Your task to perform on an android device: Go to network settings Image 0: 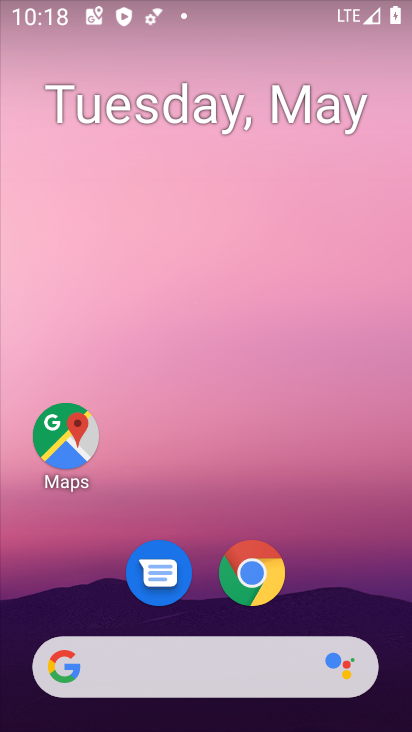
Step 0: drag from (156, 369) to (128, 54)
Your task to perform on an android device: Go to network settings Image 1: 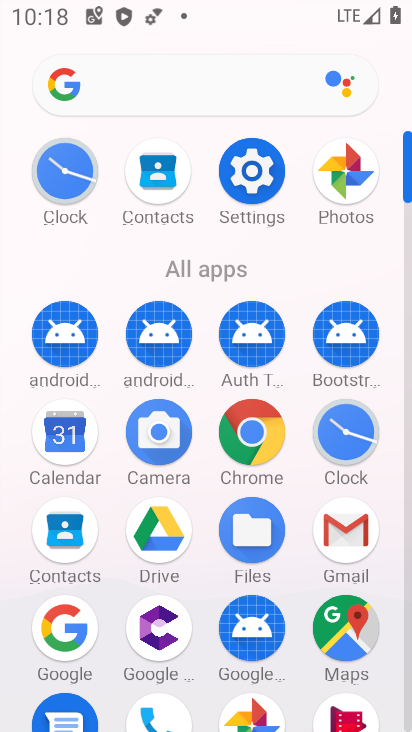
Step 1: click (255, 185)
Your task to perform on an android device: Go to network settings Image 2: 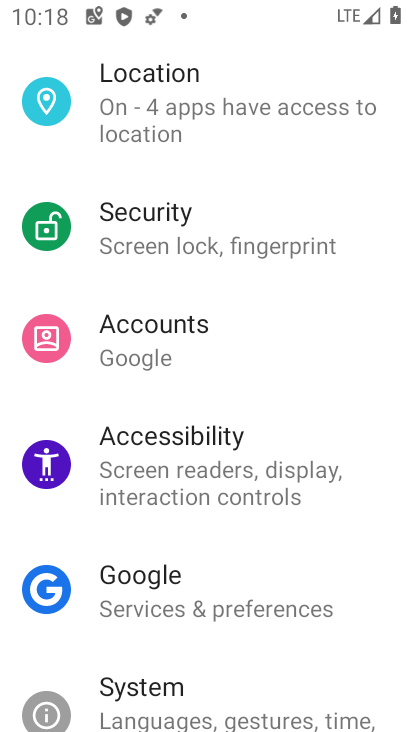
Step 2: drag from (261, 89) to (256, 643)
Your task to perform on an android device: Go to network settings Image 3: 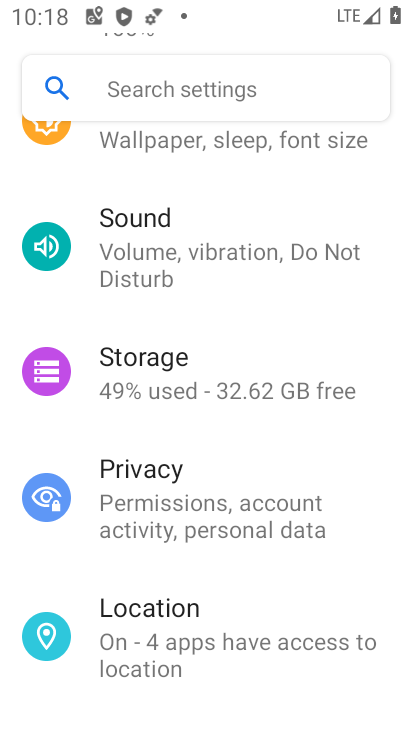
Step 3: drag from (224, 227) to (232, 596)
Your task to perform on an android device: Go to network settings Image 4: 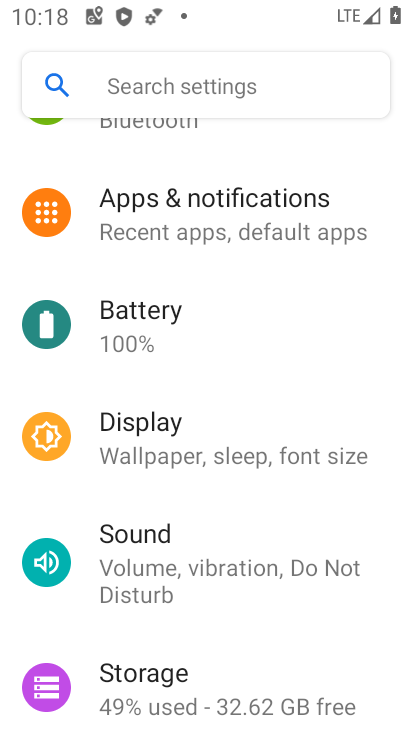
Step 4: drag from (229, 164) to (269, 592)
Your task to perform on an android device: Go to network settings Image 5: 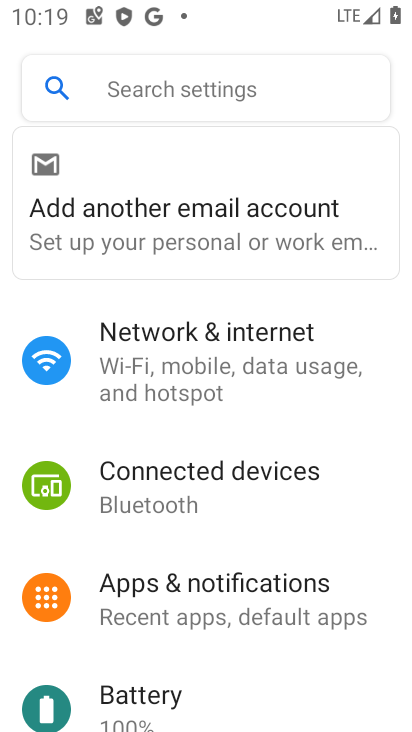
Step 5: click (277, 357)
Your task to perform on an android device: Go to network settings Image 6: 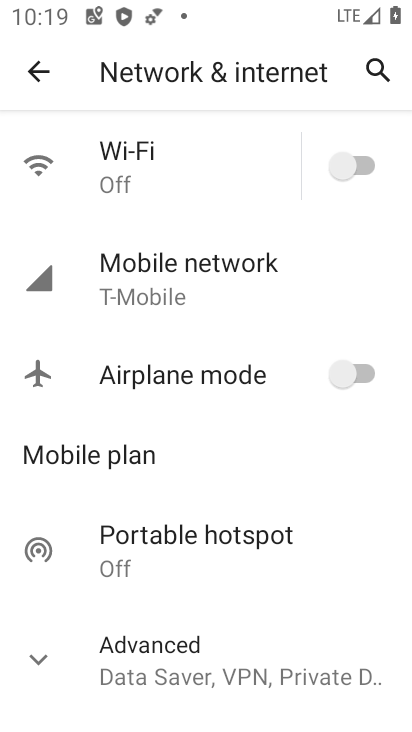
Step 6: click (185, 664)
Your task to perform on an android device: Go to network settings Image 7: 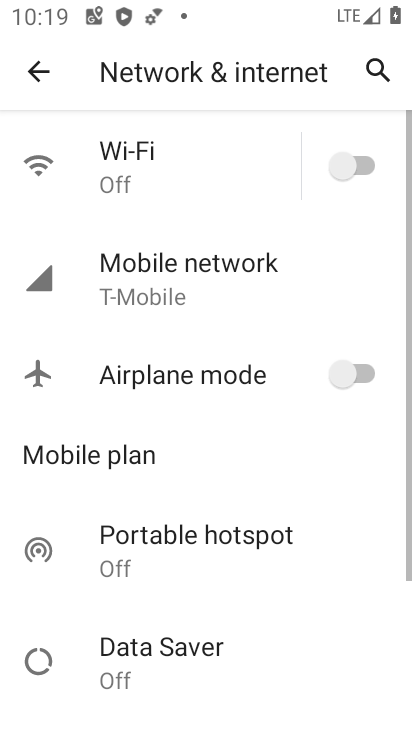
Step 7: click (183, 290)
Your task to perform on an android device: Go to network settings Image 8: 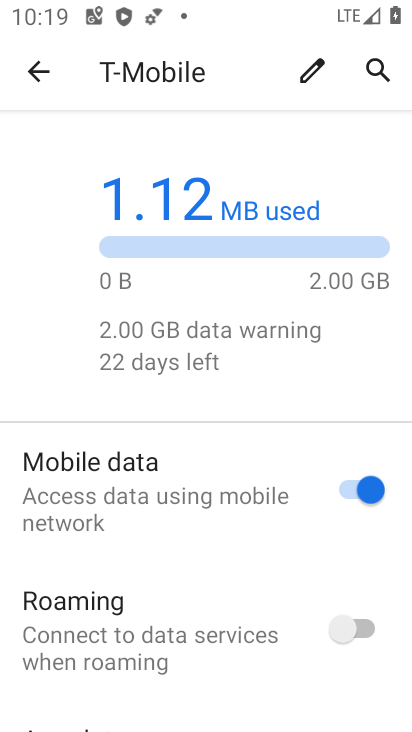
Step 8: drag from (207, 598) to (171, 236)
Your task to perform on an android device: Go to network settings Image 9: 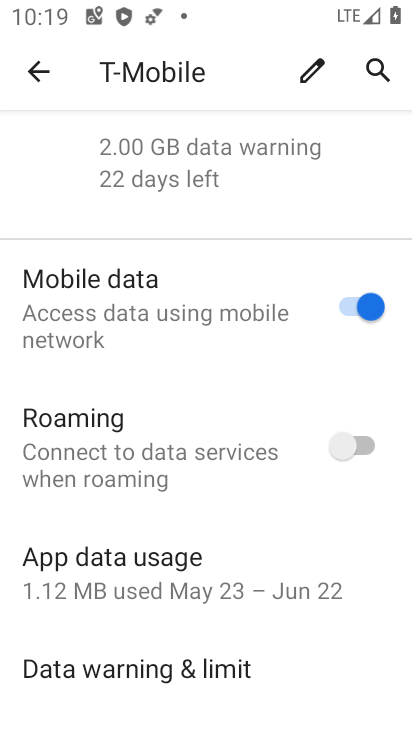
Step 9: click (212, 193)
Your task to perform on an android device: Go to network settings Image 10: 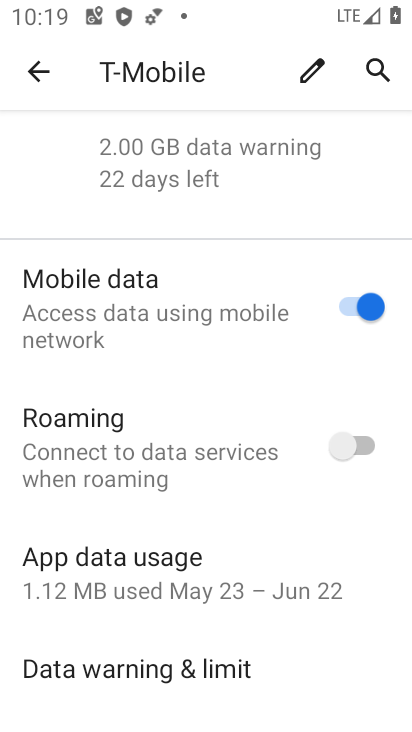
Step 10: task complete